Your task to perform on an android device: Open the map Image 0: 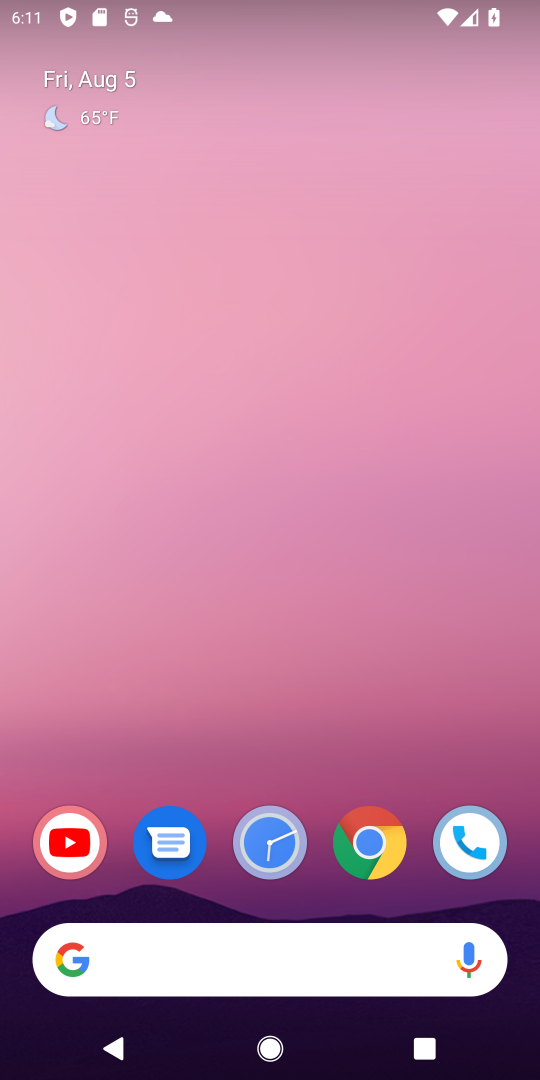
Step 0: drag from (78, 701) to (342, 142)
Your task to perform on an android device: Open the map Image 1: 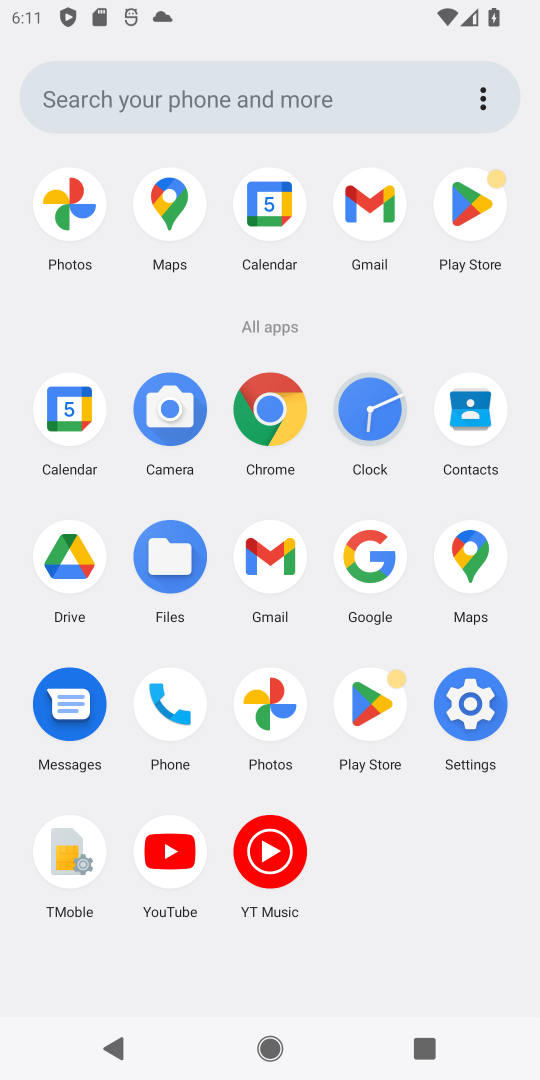
Step 1: click (159, 207)
Your task to perform on an android device: Open the map Image 2: 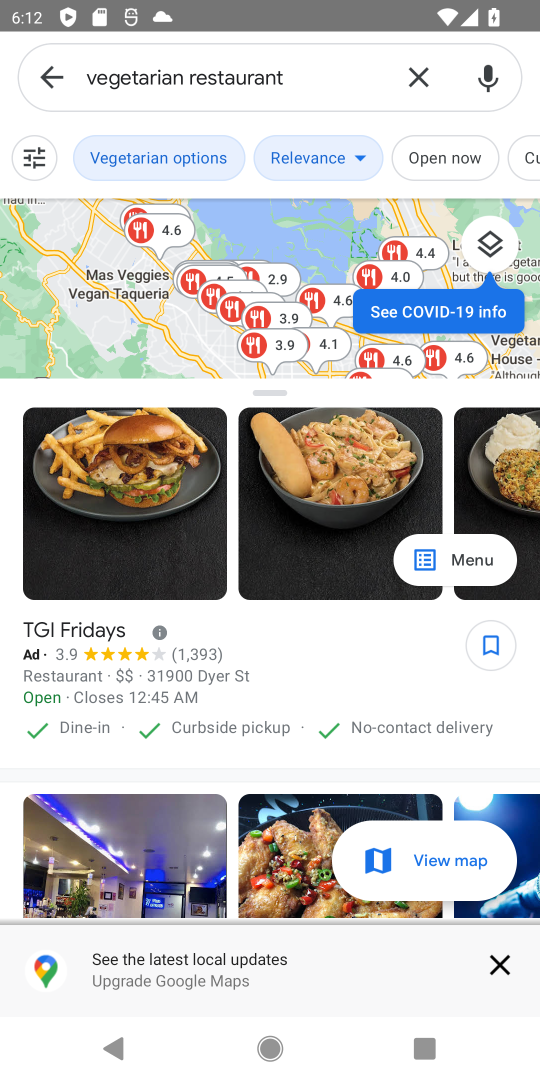
Step 2: click (56, 85)
Your task to perform on an android device: Open the map Image 3: 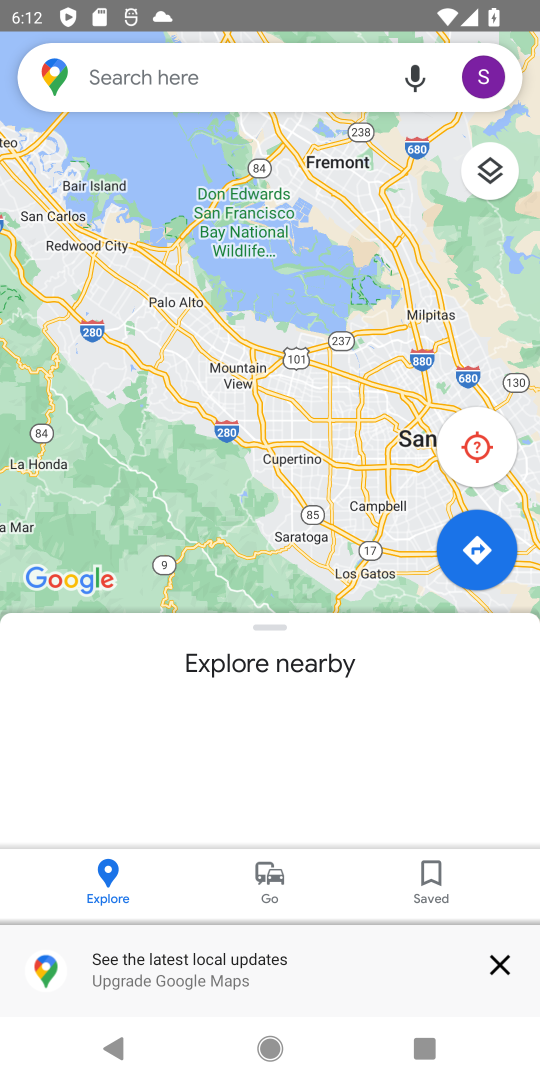
Step 3: task complete